Your task to perform on an android device: Open network settings Image 0: 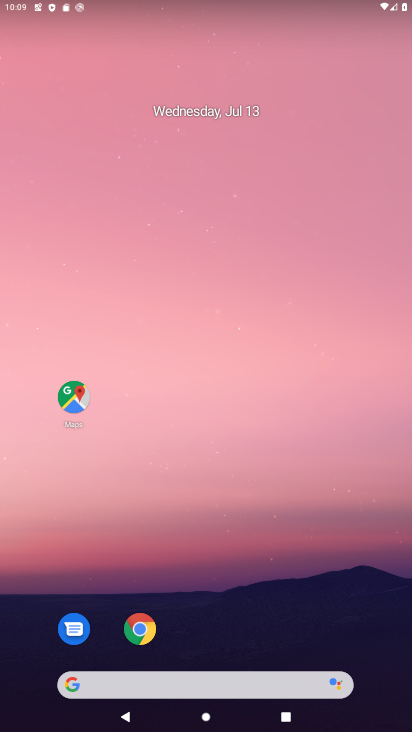
Step 0: drag from (233, 643) to (235, 146)
Your task to perform on an android device: Open network settings Image 1: 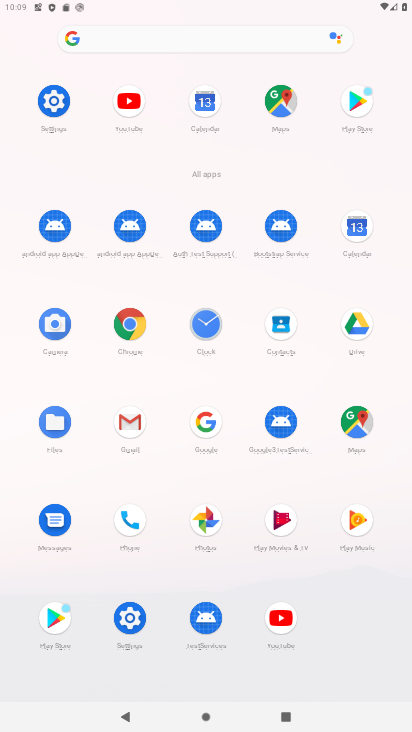
Step 1: click (54, 92)
Your task to perform on an android device: Open network settings Image 2: 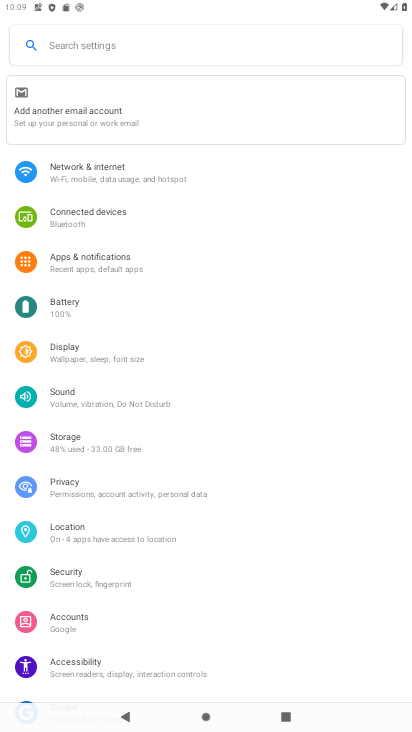
Step 2: click (111, 164)
Your task to perform on an android device: Open network settings Image 3: 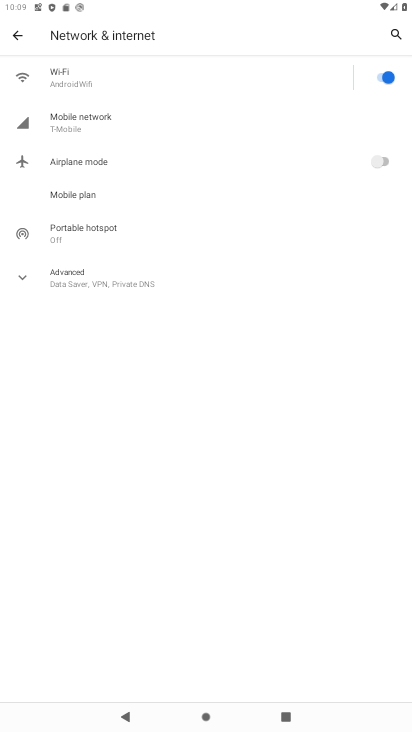
Step 3: click (57, 276)
Your task to perform on an android device: Open network settings Image 4: 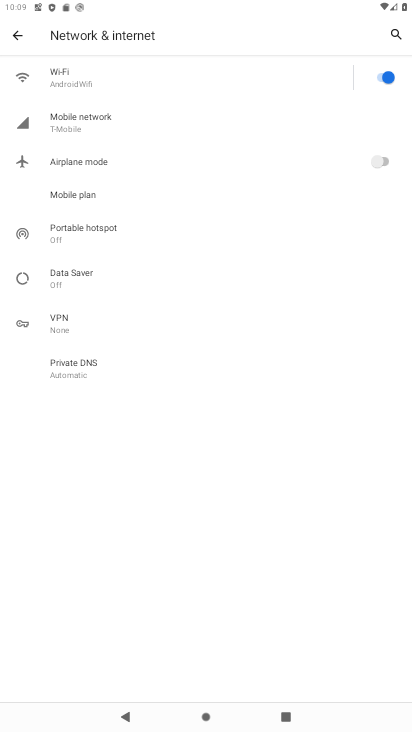
Step 4: task complete